Your task to perform on an android device: What is the recent news? Image 0: 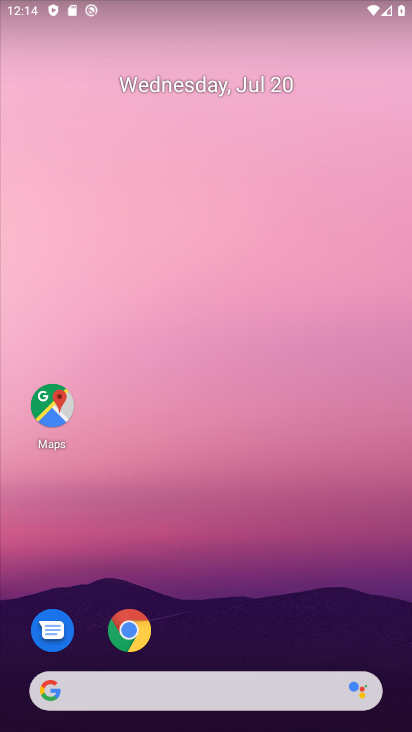
Step 0: press home button
Your task to perform on an android device: What is the recent news? Image 1: 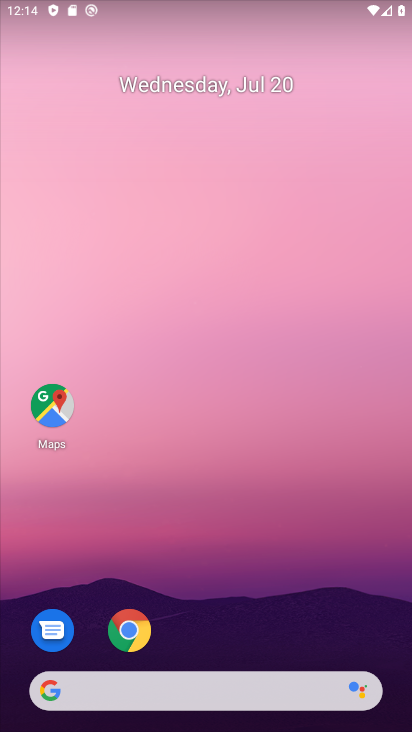
Step 1: click (158, 690)
Your task to perform on an android device: What is the recent news? Image 2: 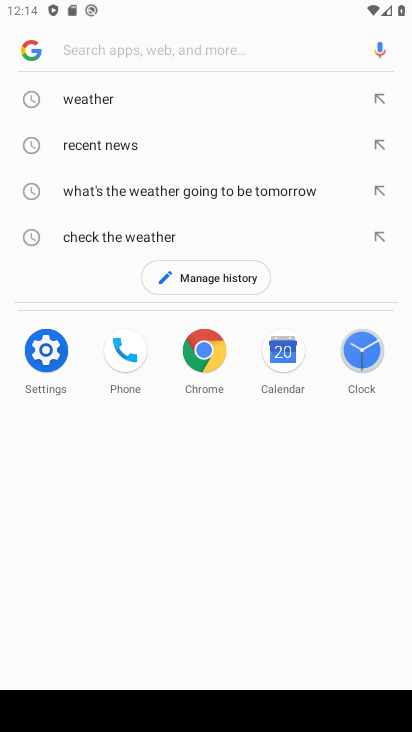
Step 2: click (98, 139)
Your task to perform on an android device: What is the recent news? Image 3: 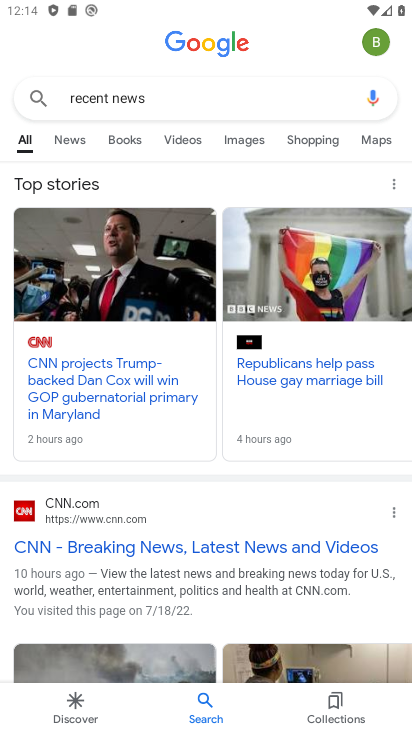
Step 3: press home button
Your task to perform on an android device: What is the recent news? Image 4: 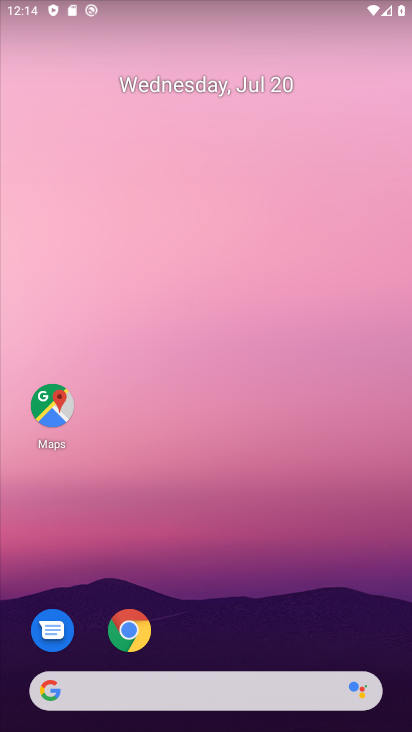
Step 4: click (134, 689)
Your task to perform on an android device: What is the recent news? Image 5: 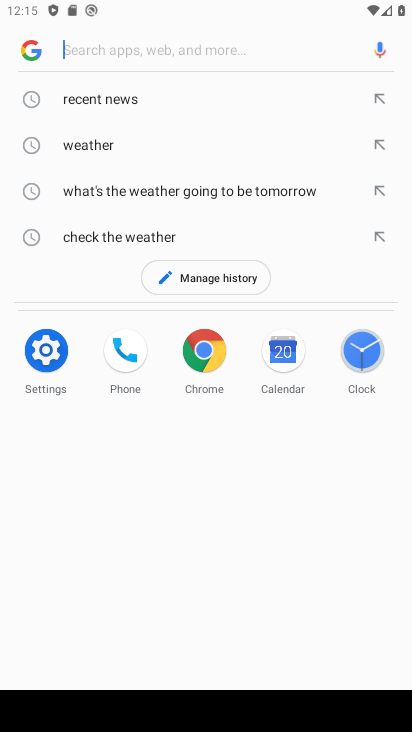
Step 5: click (123, 101)
Your task to perform on an android device: What is the recent news? Image 6: 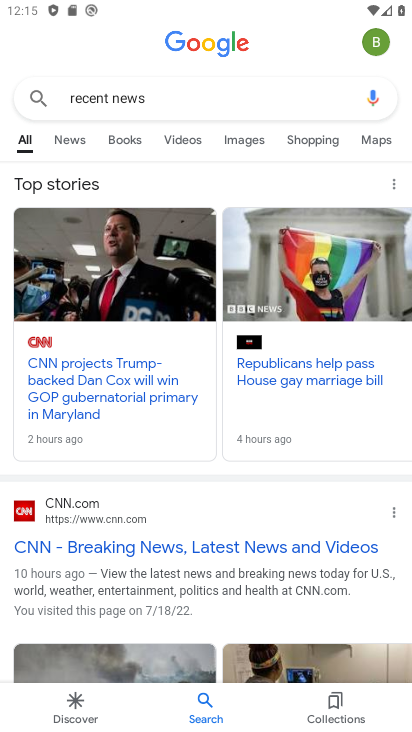
Step 6: task complete